Your task to perform on an android device: turn smart compose on in the gmail app Image 0: 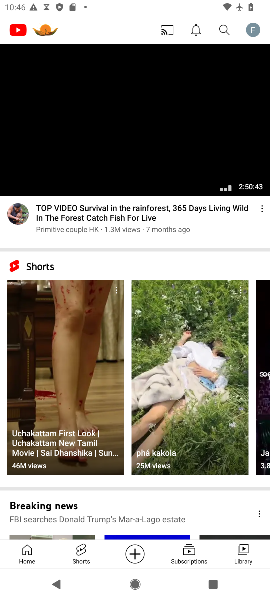
Step 0: press back button
Your task to perform on an android device: turn smart compose on in the gmail app Image 1: 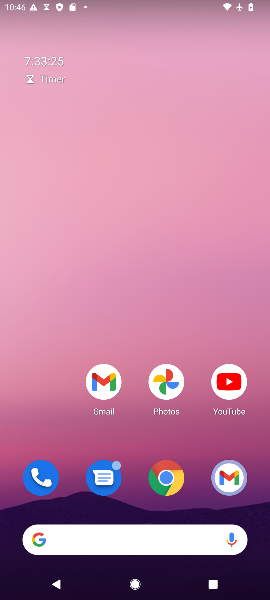
Step 1: press back button
Your task to perform on an android device: turn smart compose on in the gmail app Image 2: 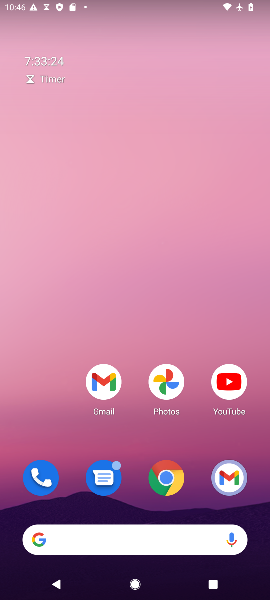
Step 2: click (111, 378)
Your task to perform on an android device: turn smart compose on in the gmail app Image 3: 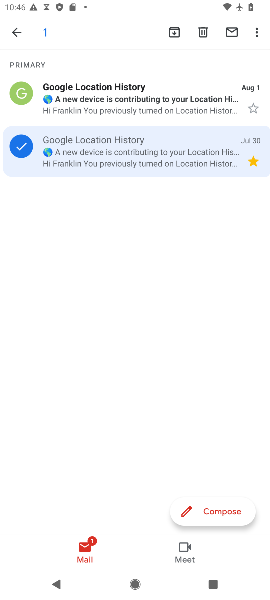
Step 3: click (23, 30)
Your task to perform on an android device: turn smart compose on in the gmail app Image 4: 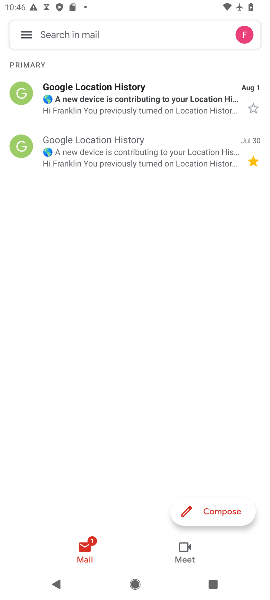
Step 4: click (23, 30)
Your task to perform on an android device: turn smart compose on in the gmail app Image 5: 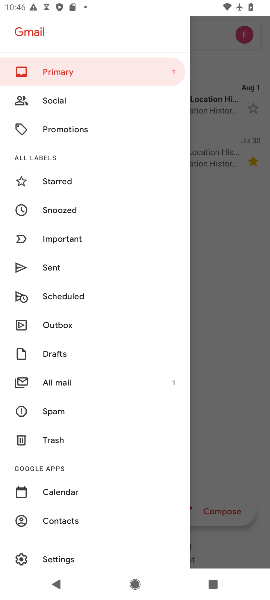
Step 5: click (86, 556)
Your task to perform on an android device: turn smart compose on in the gmail app Image 6: 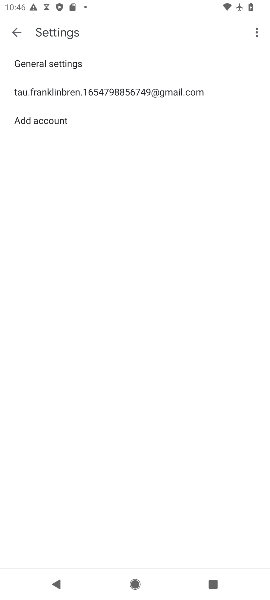
Step 6: click (126, 92)
Your task to perform on an android device: turn smart compose on in the gmail app Image 7: 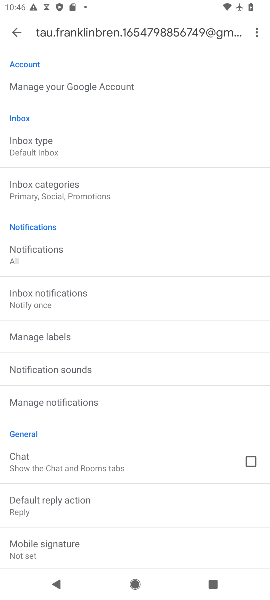
Step 7: task complete